Your task to perform on an android device: change the upload size in google photos Image 0: 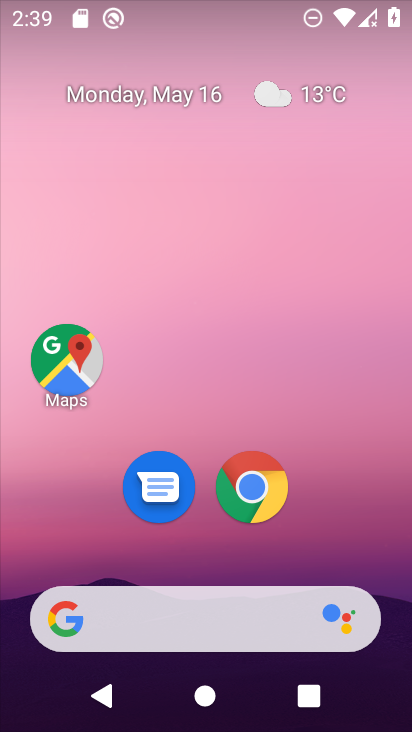
Step 0: drag from (407, 580) to (409, 158)
Your task to perform on an android device: change the upload size in google photos Image 1: 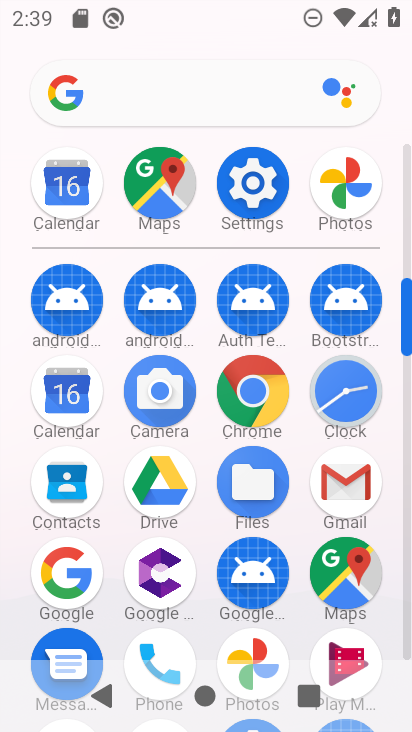
Step 1: click (244, 647)
Your task to perform on an android device: change the upload size in google photos Image 2: 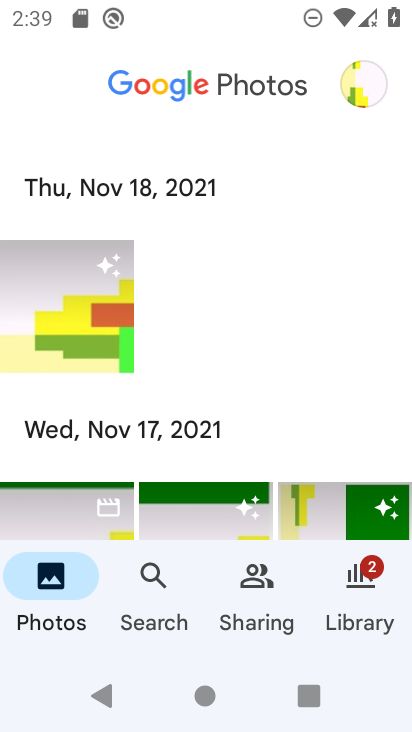
Step 2: click (358, 83)
Your task to perform on an android device: change the upload size in google photos Image 3: 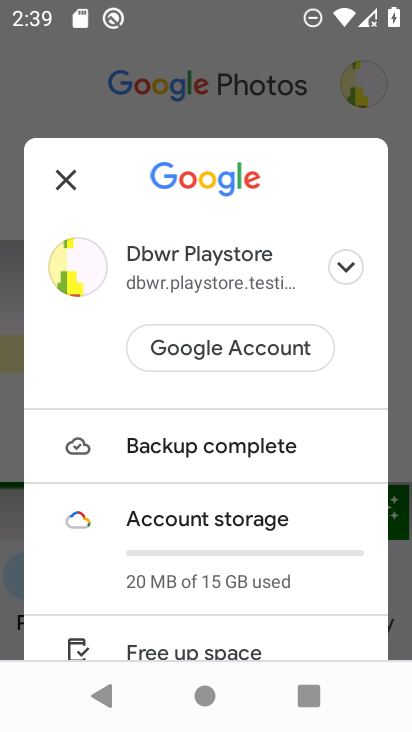
Step 3: click (205, 446)
Your task to perform on an android device: change the upload size in google photos Image 4: 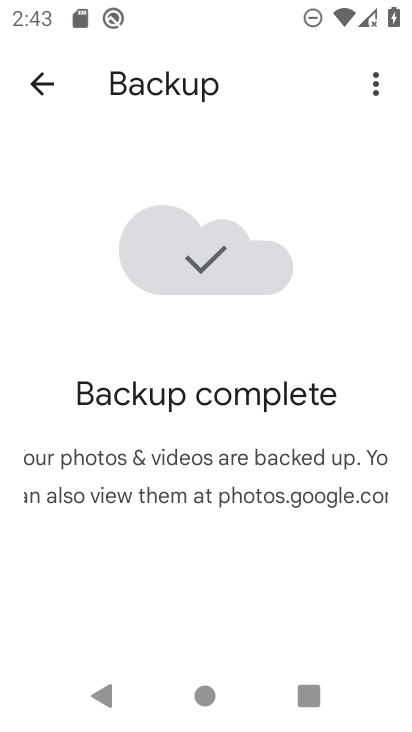
Step 4: task complete